Your task to perform on an android device: search for starred emails in the gmail app Image 0: 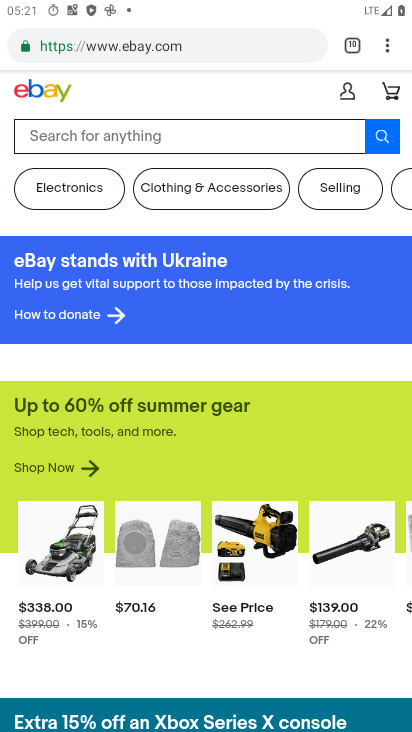
Step 0: press home button
Your task to perform on an android device: search for starred emails in the gmail app Image 1: 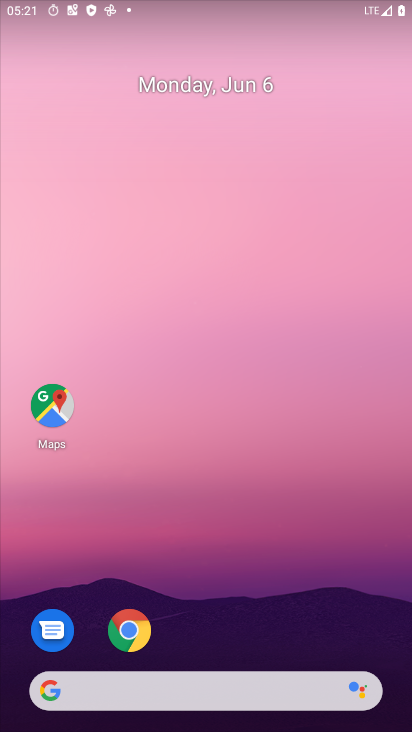
Step 1: drag from (249, 632) to (287, 55)
Your task to perform on an android device: search for starred emails in the gmail app Image 2: 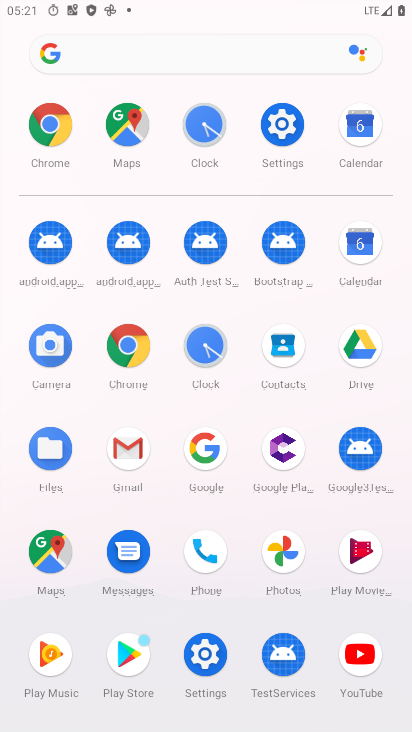
Step 2: click (131, 442)
Your task to perform on an android device: search for starred emails in the gmail app Image 3: 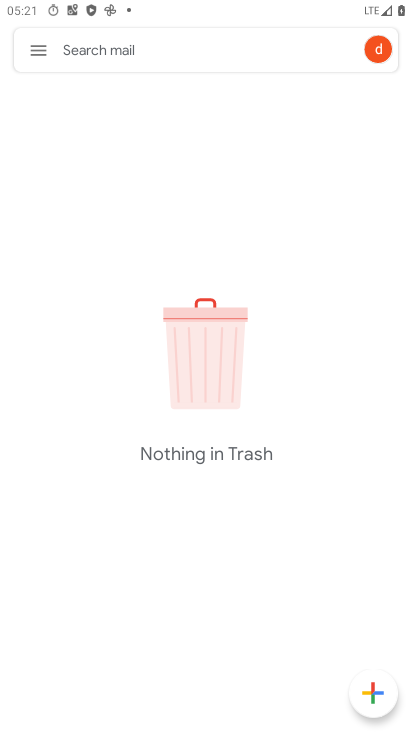
Step 3: click (35, 47)
Your task to perform on an android device: search for starred emails in the gmail app Image 4: 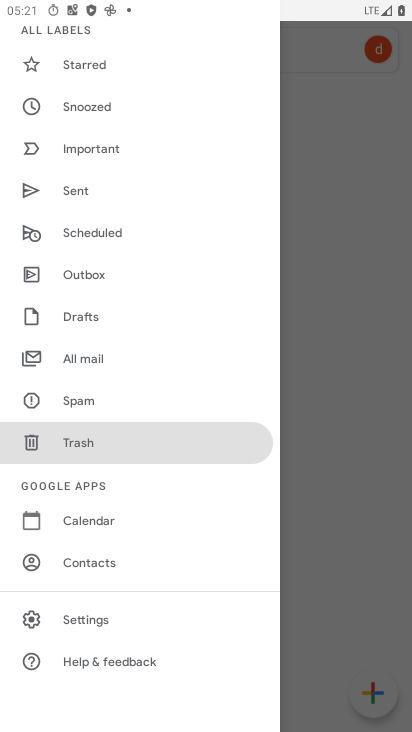
Step 4: click (102, 60)
Your task to perform on an android device: search for starred emails in the gmail app Image 5: 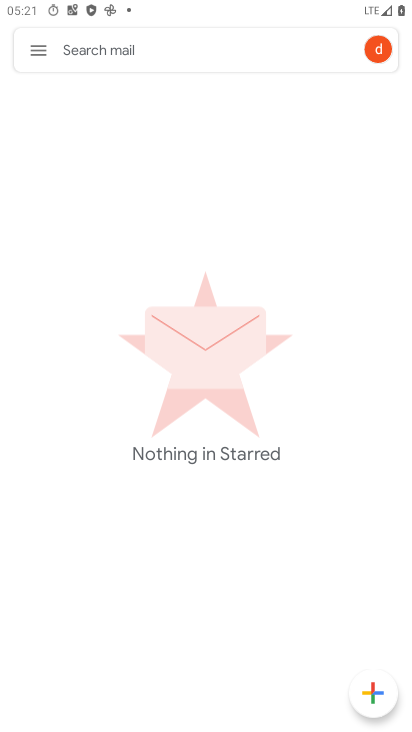
Step 5: task complete